Your task to perform on an android device: turn on wifi Image 0: 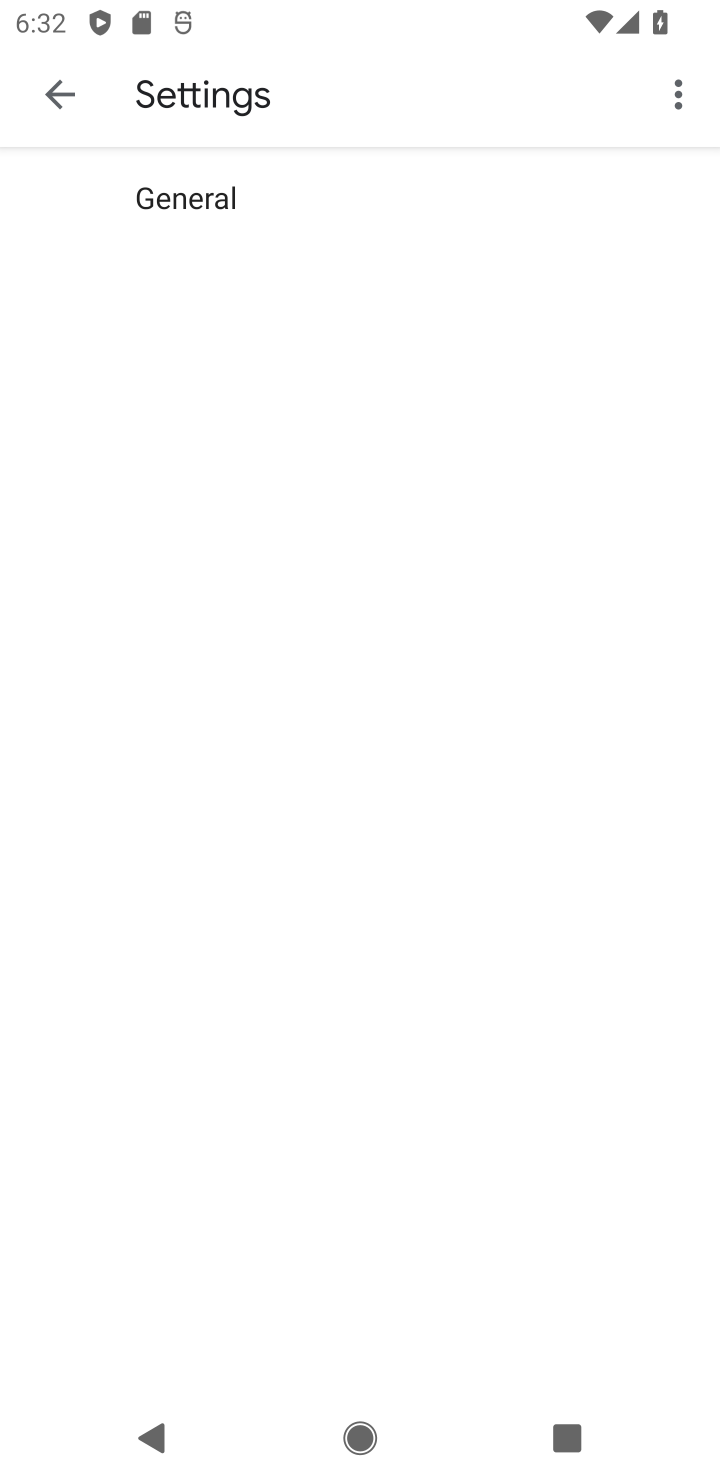
Step 0: press back button
Your task to perform on an android device: turn on wifi Image 1: 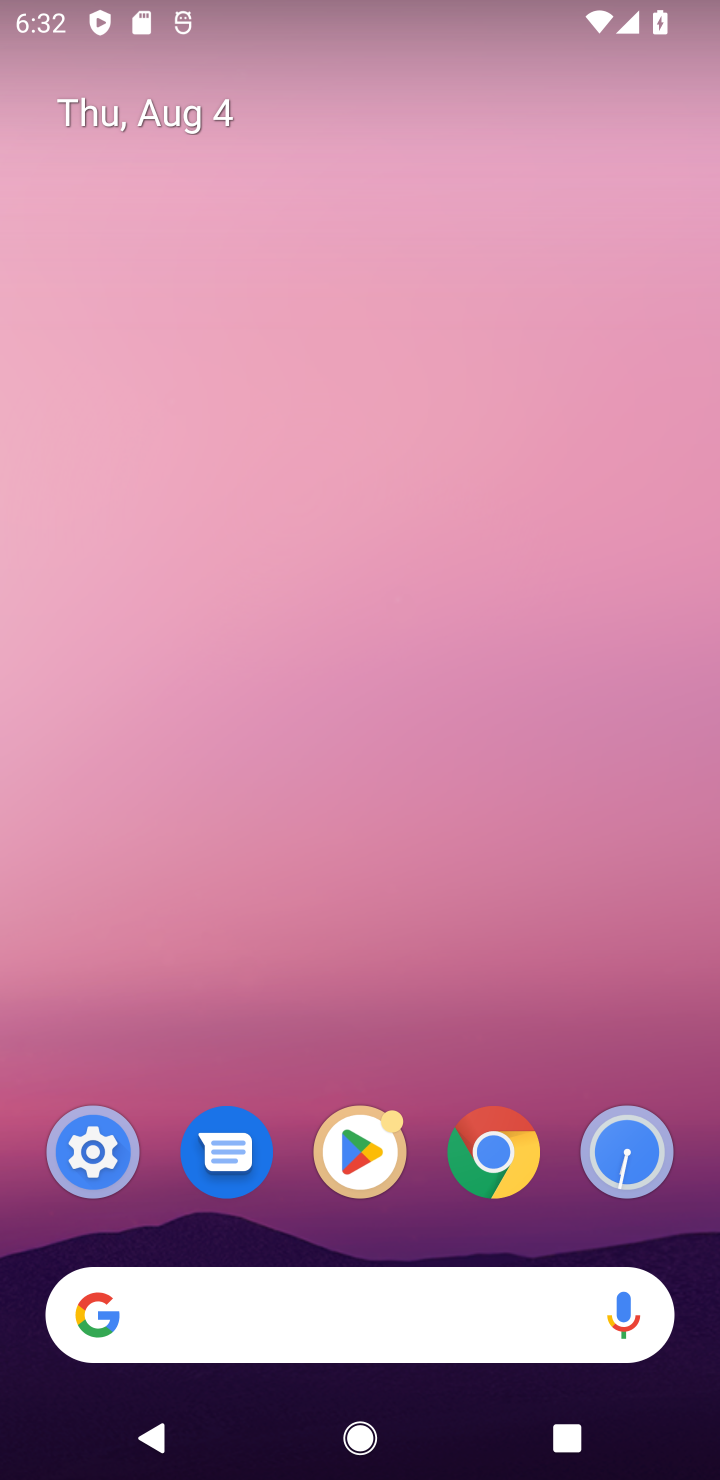
Step 1: task complete